Your task to perform on an android device: Open battery settings Image 0: 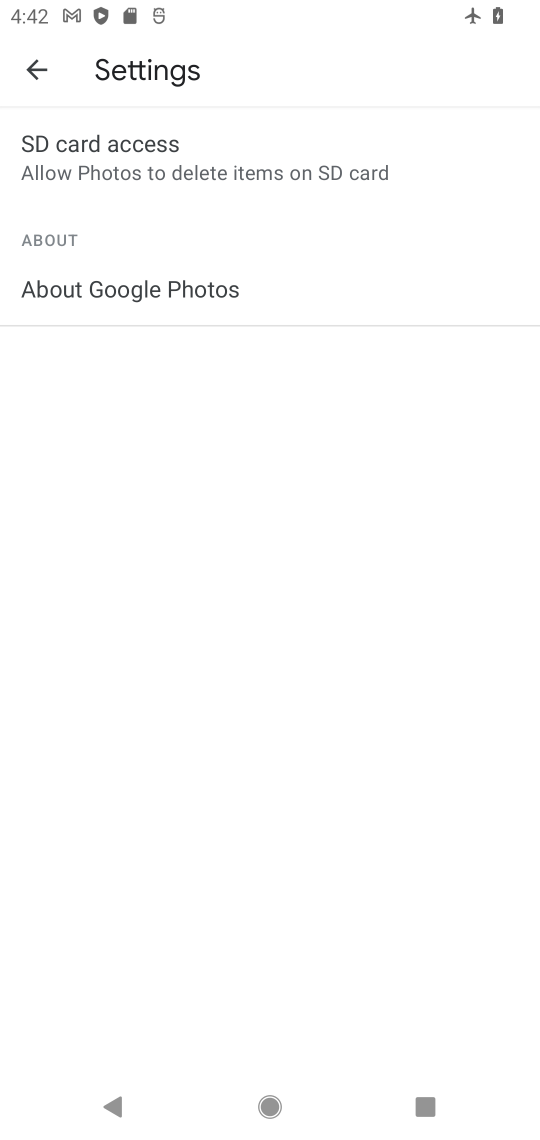
Step 0: press home button
Your task to perform on an android device: Open battery settings Image 1: 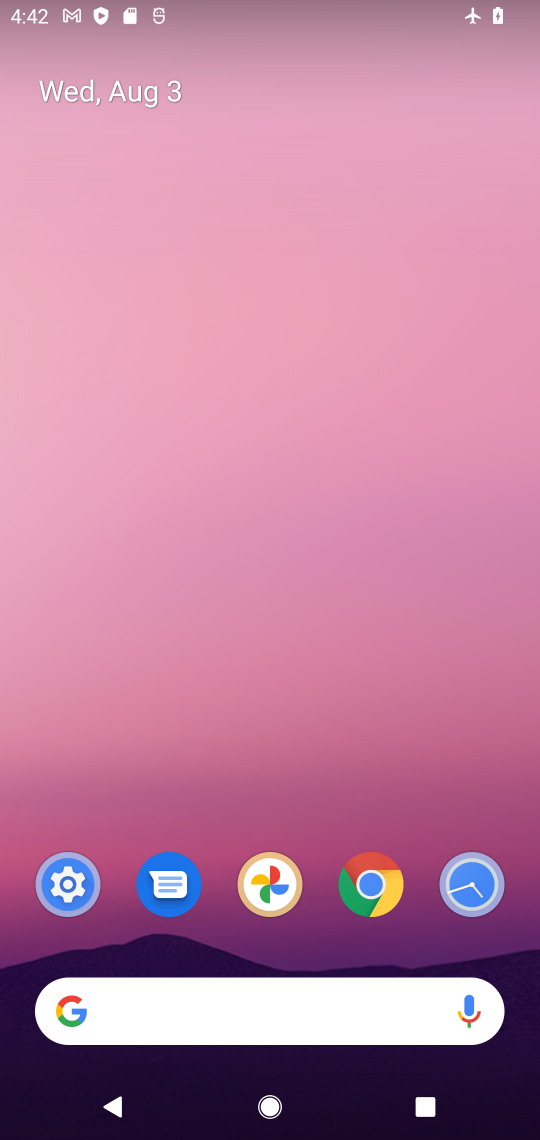
Step 1: drag from (253, 1054) to (350, 68)
Your task to perform on an android device: Open battery settings Image 2: 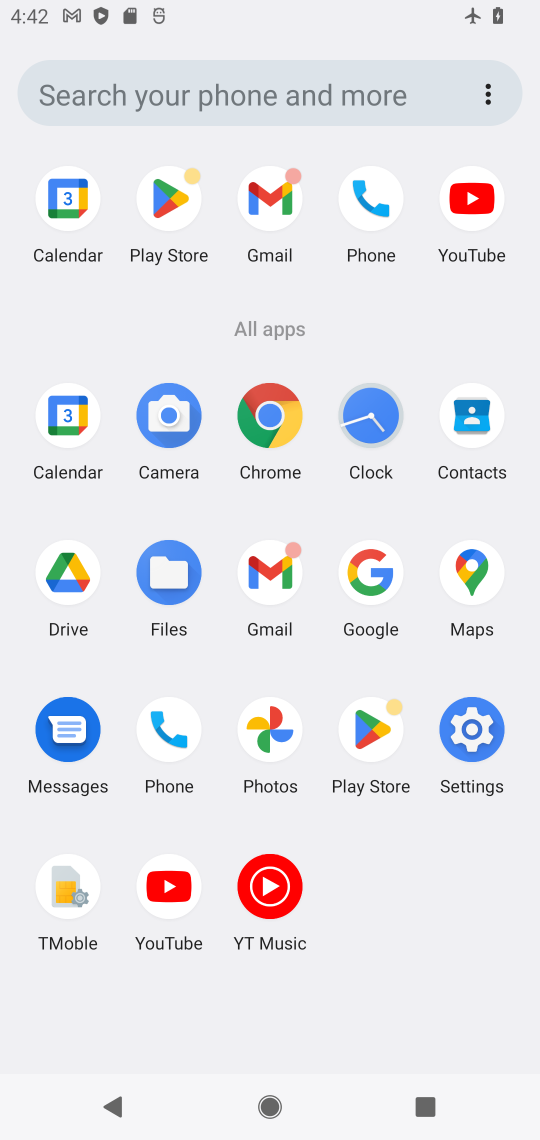
Step 2: click (449, 738)
Your task to perform on an android device: Open battery settings Image 3: 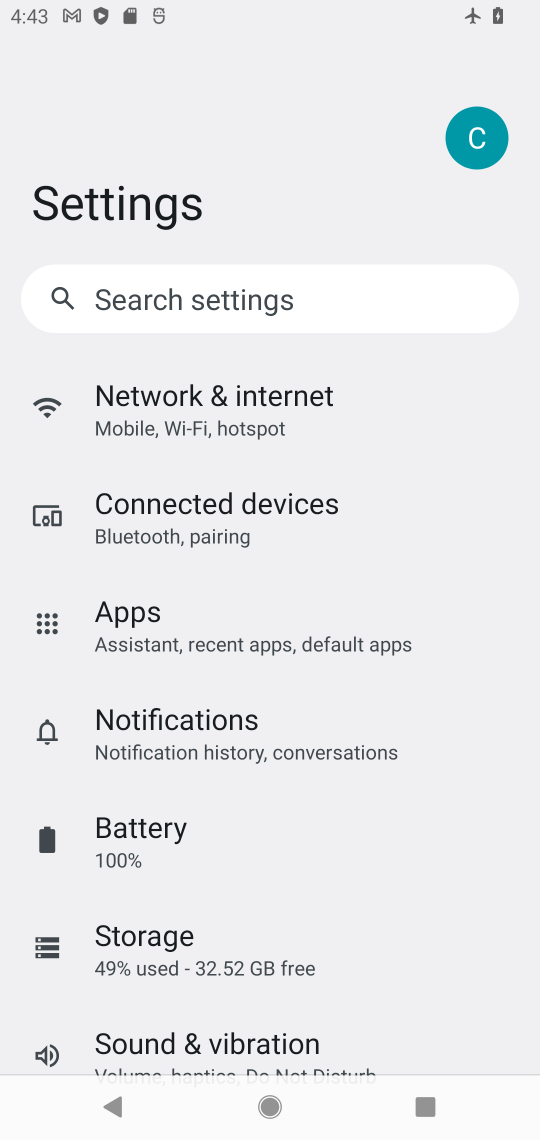
Step 3: drag from (277, 898) to (264, 345)
Your task to perform on an android device: Open battery settings Image 4: 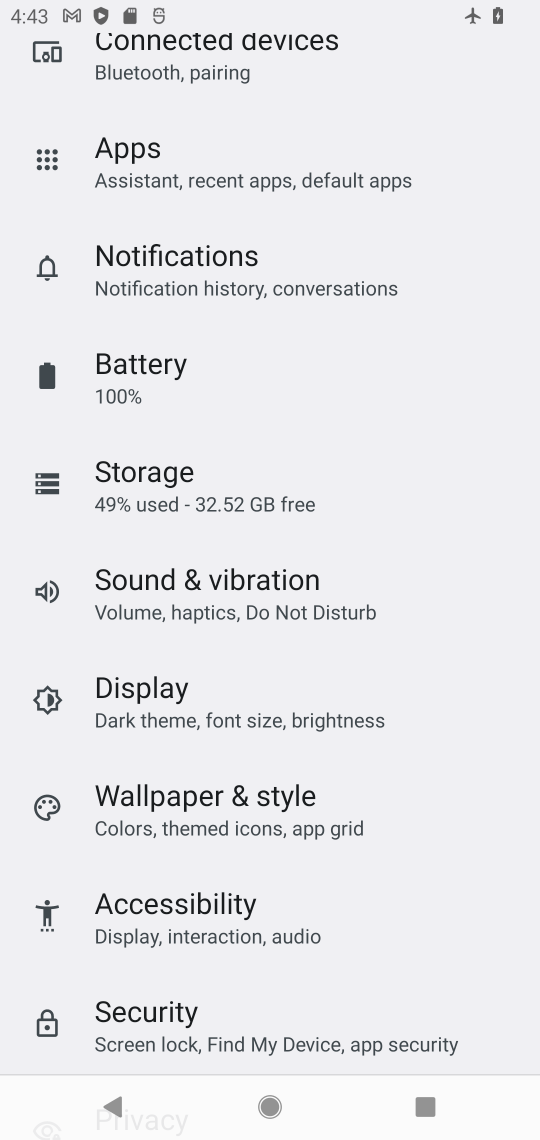
Step 4: click (188, 412)
Your task to perform on an android device: Open battery settings Image 5: 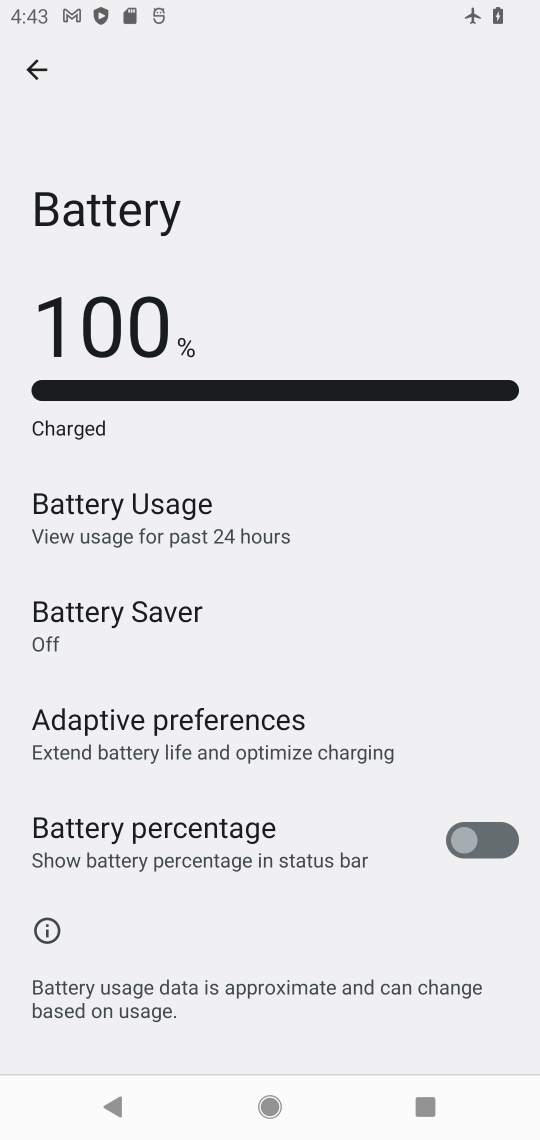
Step 5: task complete